Your task to perform on an android device: turn on javascript in the chrome app Image 0: 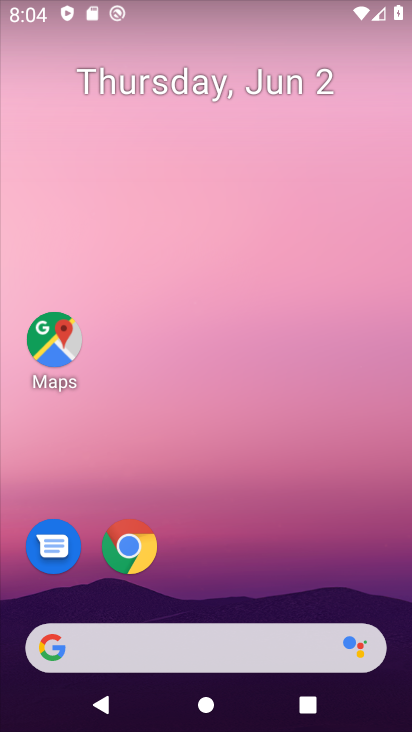
Step 0: drag from (211, 628) to (143, 212)
Your task to perform on an android device: turn on javascript in the chrome app Image 1: 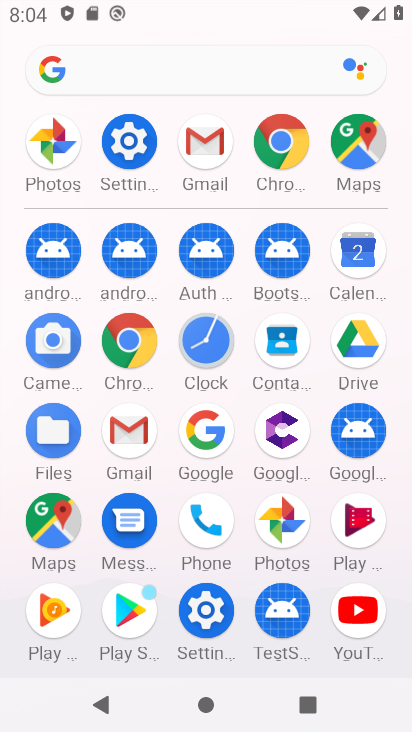
Step 1: click (266, 137)
Your task to perform on an android device: turn on javascript in the chrome app Image 2: 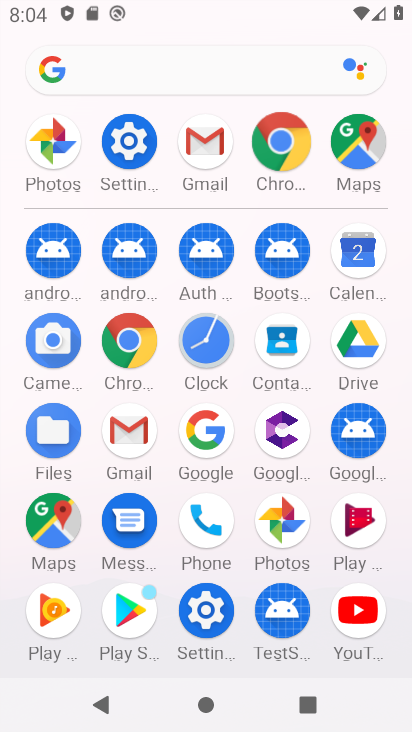
Step 2: click (266, 137)
Your task to perform on an android device: turn on javascript in the chrome app Image 3: 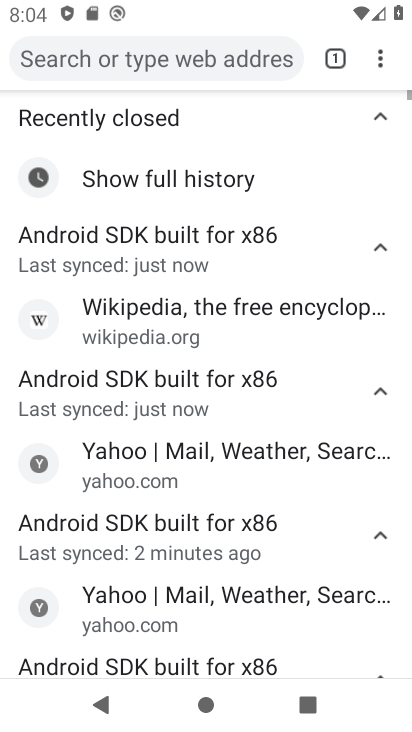
Step 3: click (374, 63)
Your task to perform on an android device: turn on javascript in the chrome app Image 4: 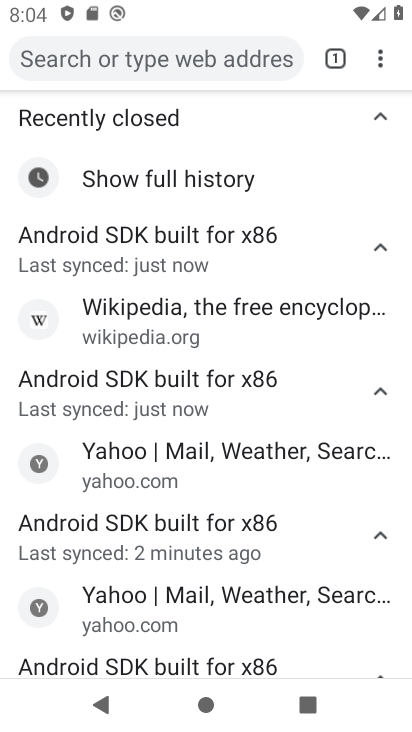
Step 4: drag from (383, 60) to (167, 491)
Your task to perform on an android device: turn on javascript in the chrome app Image 5: 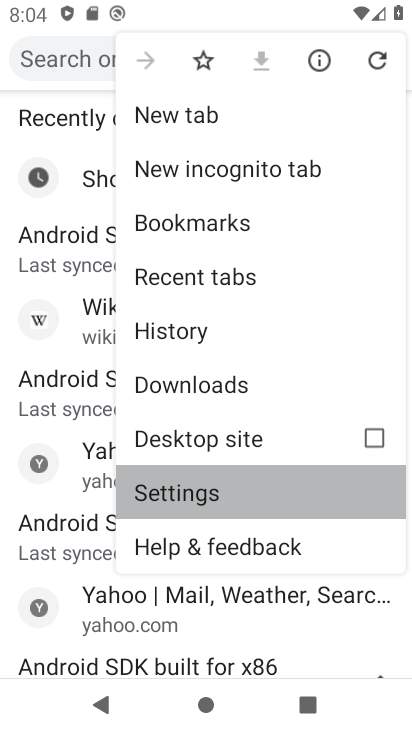
Step 5: click (167, 491)
Your task to perform on an android device: turn on javascript in the chrome app Image 6: 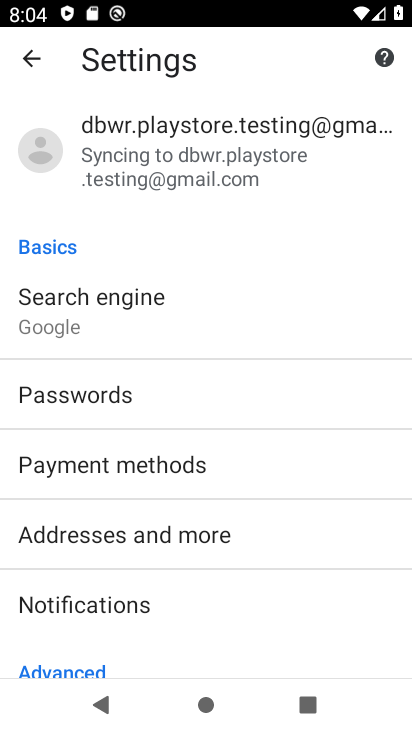
Step 6: drag from (253, 532) to (206, 233)
Your task to perform on an android device: turn on javascript in the chrome app Image 7: 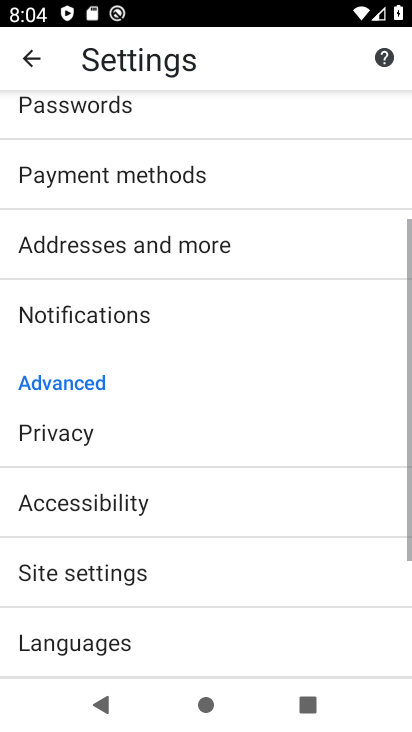
Step 7: drag from (222, 449) to (219, 157)
Your task to perform on an android device: turn on javascript in the chrome app Image 8: 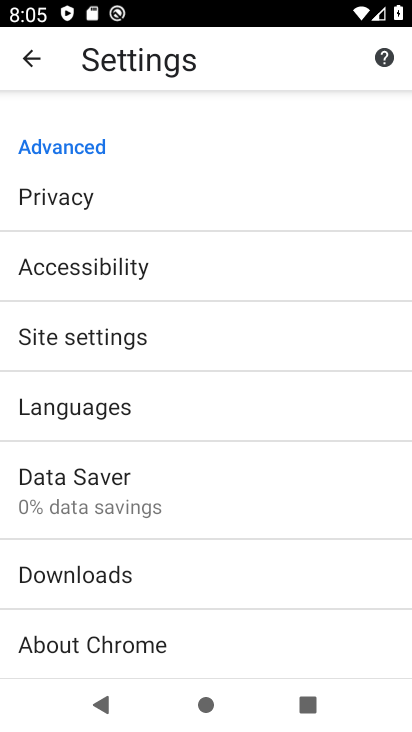
Step 8: click (67, 323)
Your task to perform on an android device: turn on javascript in the chrome app Image 9: 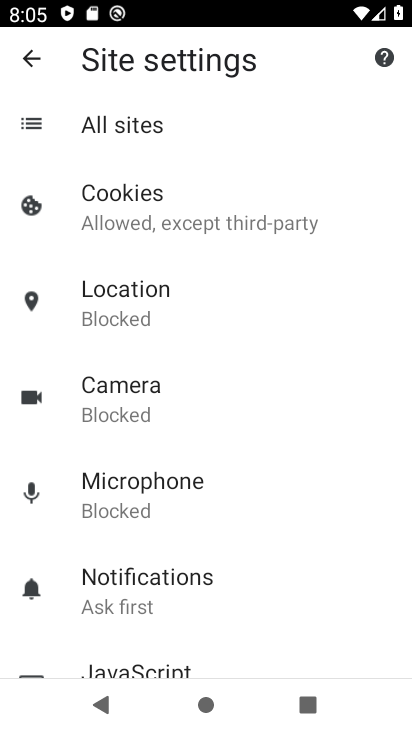
Step 9: drag from (164, 542) to (145, 141)
Your task to perform on an android device: turn on javascript in the chrome app Image 10: 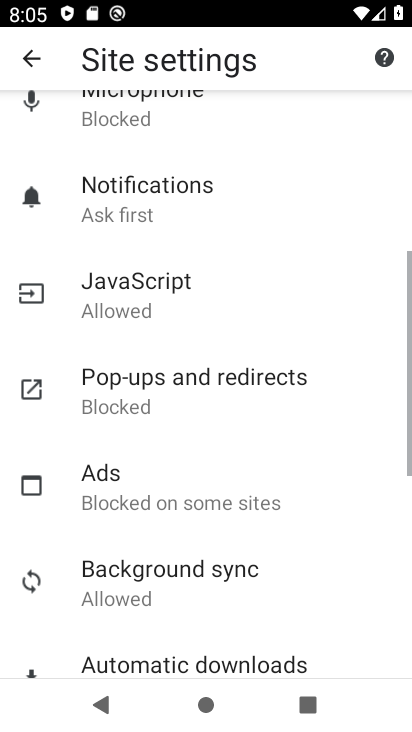
Step 10: drag from (178, 452) to (170, 217)
Your task to perform on an android device: turn on javascript in the chrome app Image 11: 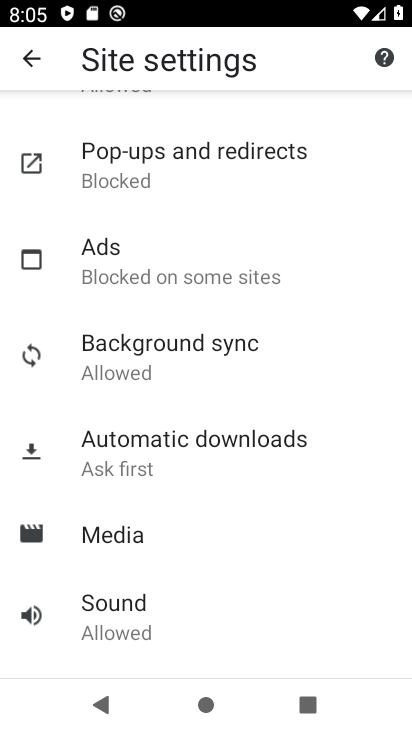
Step 11: drag from (177, 483) to (131, 245)
Your task to perform on an android device: turn on javascript in the chrome app Image 12: 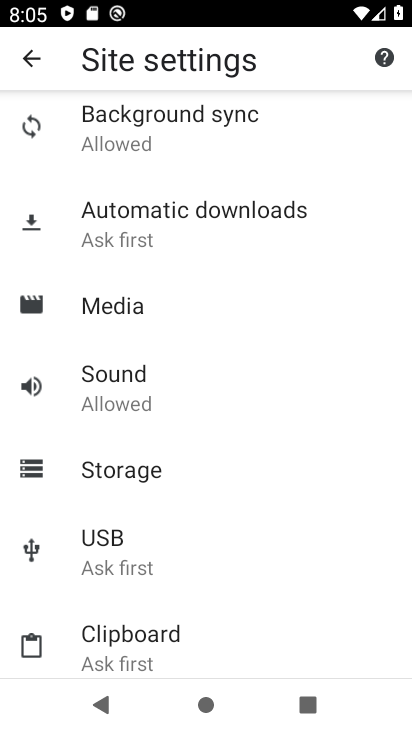
Step 12: drag from (130, 241) to (170, 524)
Your task to perform on an android device: turn on javascript in the chrome app Image 13: 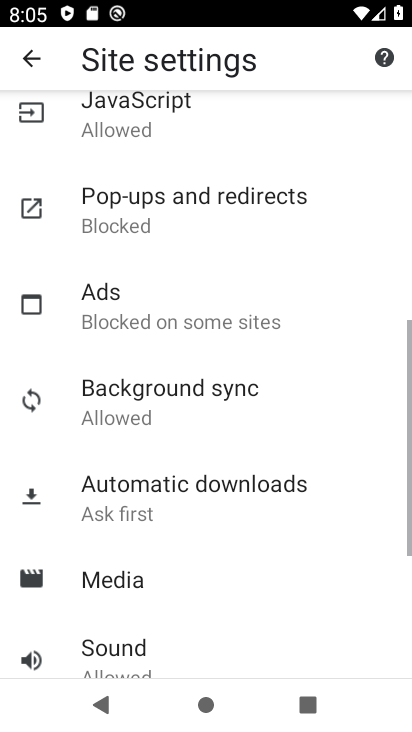
Step 13: drag from (120, 263) to (150, 452)
Your task to perform on an android device: turn on javascript in the chrome app Image 14: 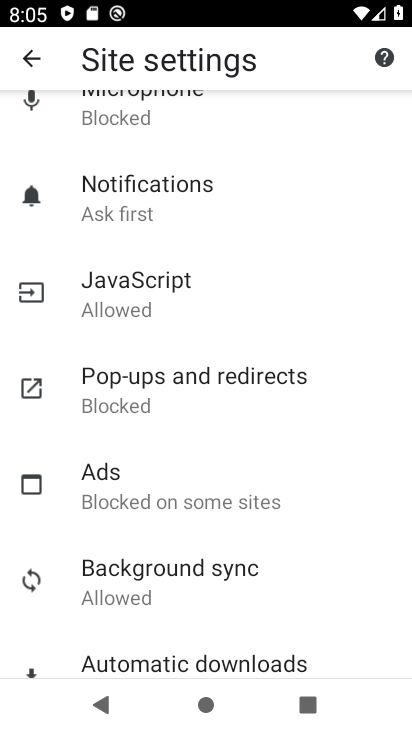
Step 14: click (122, 286)
Your task to perform on an android device: turn on javascript in the chrome app Image 15: 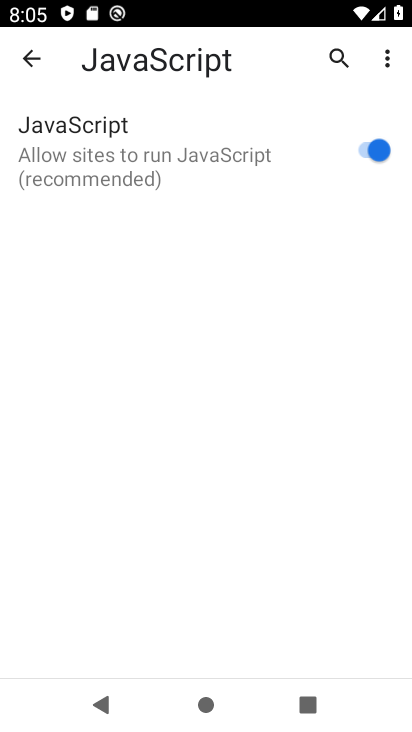
Step 15: task complete